Your task to perform on an android device: Go to wifi settings Image 0: 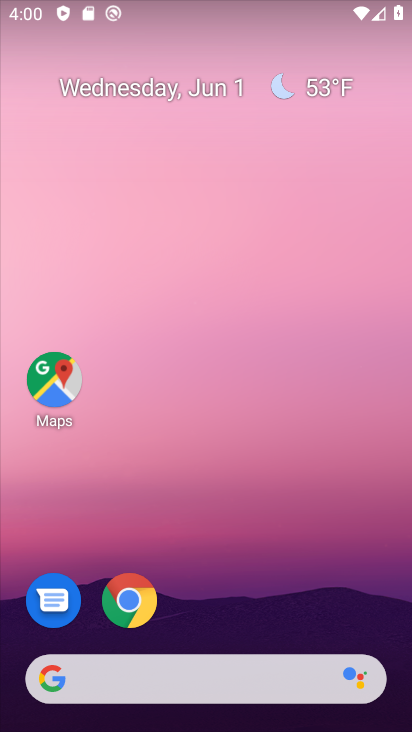
Step 0: drag from (266, 572) to (174, 122)
Your task to perform on an android device: Go to wifi settings Image 1: 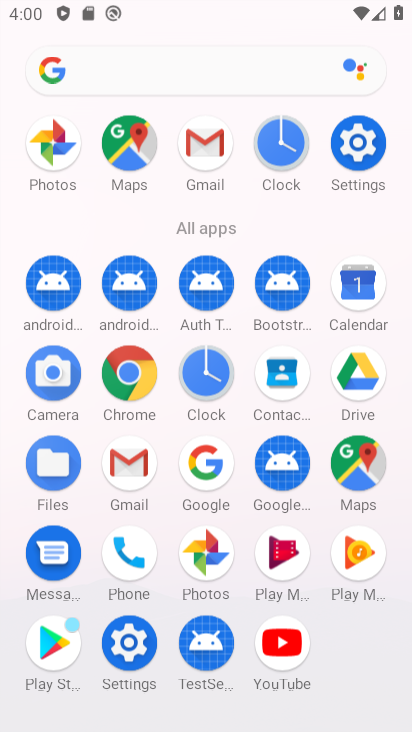
Step 1: drag from (224, 480) to (151, 3)
Your task to perform on an android device: Go to wifi settings Image 2: 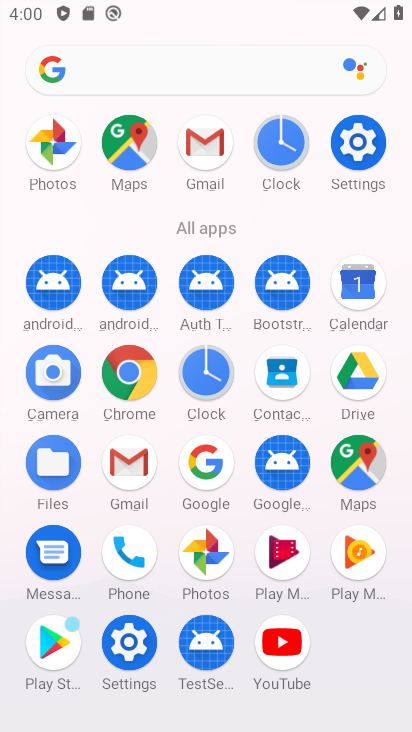
Step 2: click (358, 146)
Your task to perform on an android device: Go to wifi settings Image 3: 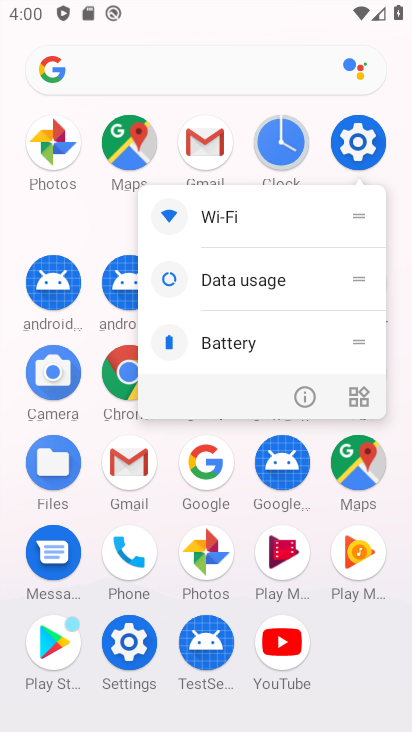
Step 3: click (361, 136)
Your task to perform on an android device: Go to wifi settings Image 4: 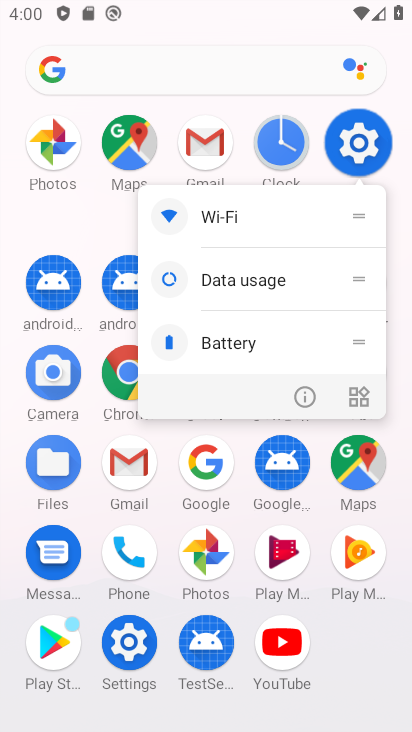
Step 4: click (357, 140)
Your task to perform on an android device: Go to wifi settings Image 5: 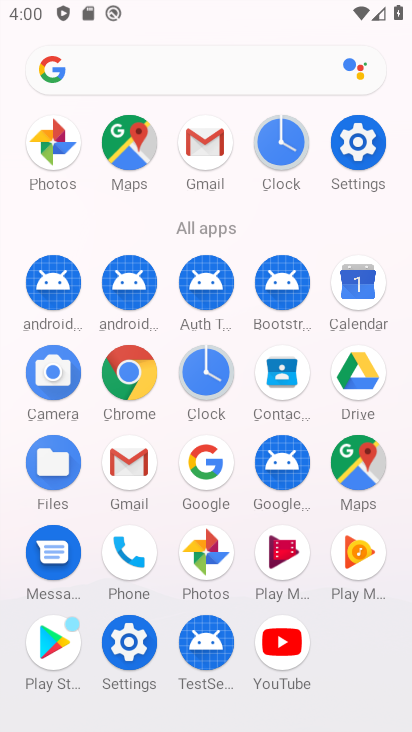
Step 5: click (358, 141)
Your task to perform on an android device: Go to wifi settings Image 6: 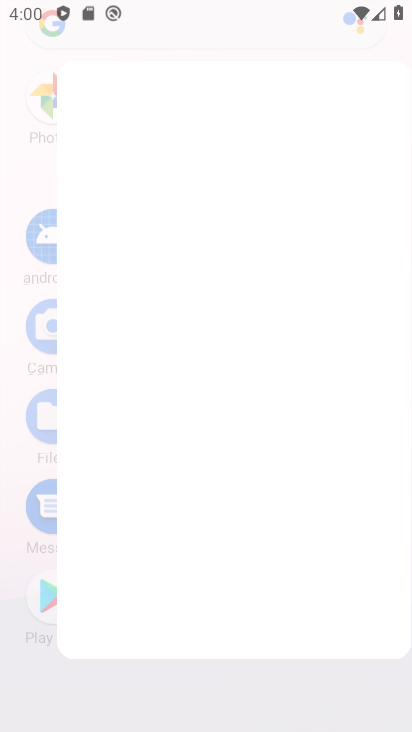
Step 6: click (361, 141)
Your task to perform on an android device: Go to wifi settings Image 7: 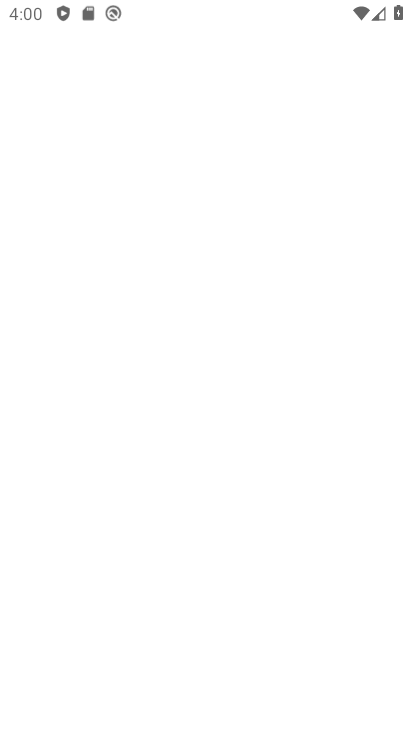
Step 7: click (361, 141)
Your task to perform on an android device: Go to wifi settings Image 8: 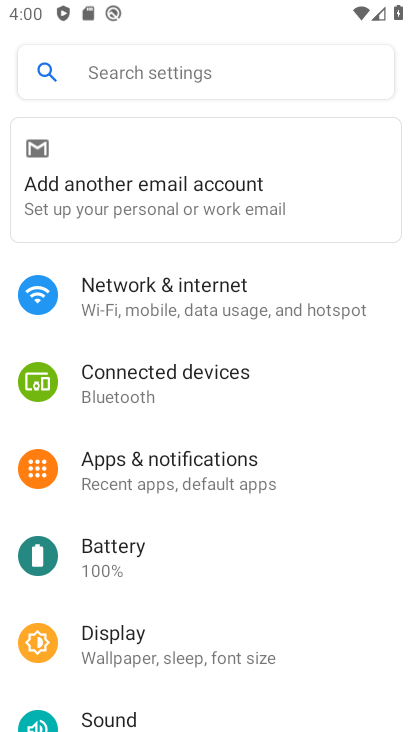
Step 8: drag from (134, 615) to (146, 149)
Your task to perform on an android device: Go to wifi settings Image 9: 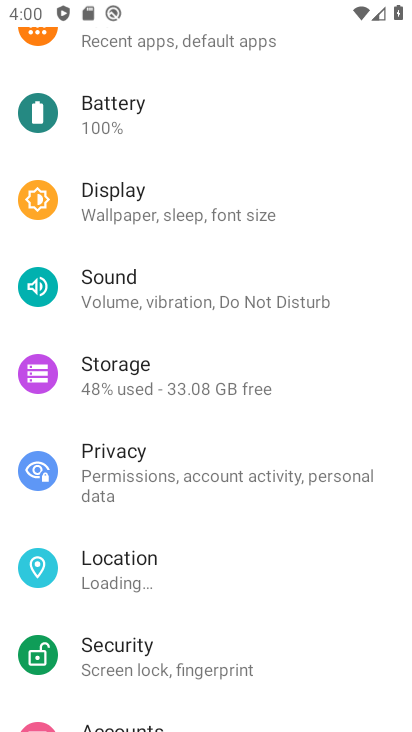
Step 9: drag from (166, 387) to (178, 243)
Your task to perform on an android device: Go to wifi settings Image 10: 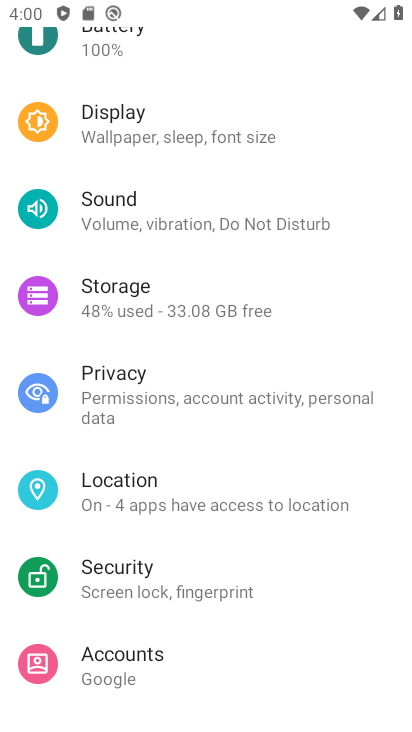
Step 10: drag from (141, 478) to (74, 188)
Your task to perform on an android device: Go to wifi settings Image 11: 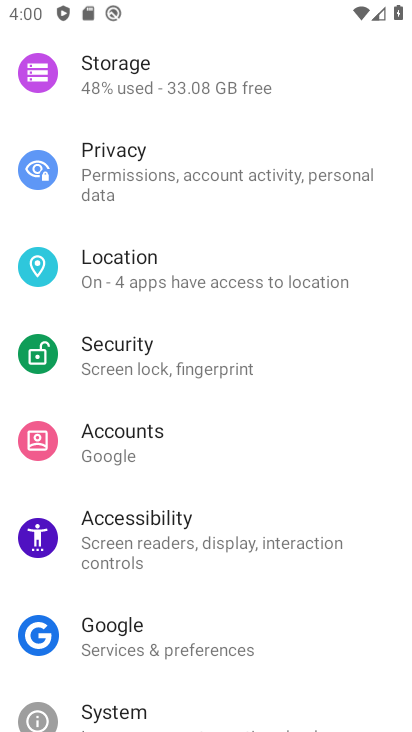
Step 11: drag from (149, 446) to (150, 254)
Your task to perform on an android device: Go to wifi settings Image 12: 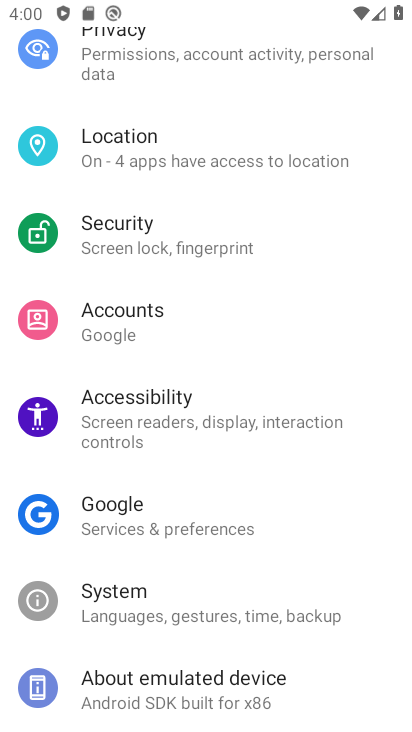
Step 12: drag from (133, 312) to (165, 597)
Your task to perform on an android device: Go to wifi settings Image 13: 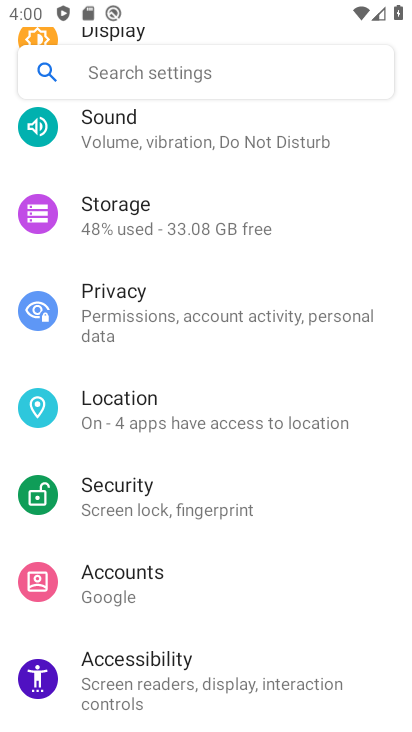
Step 13: drag from (169, 198) to (179, 459)
Your task to perform on an android device: Go to wifi settings Image 14: 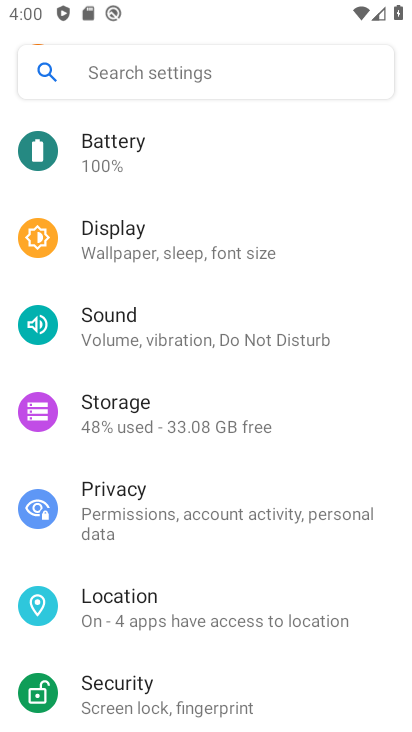
Step 14: drag from (151, 308) to (172, 505)
Your task to perform on an android device: Go to wifi settings Image 15: 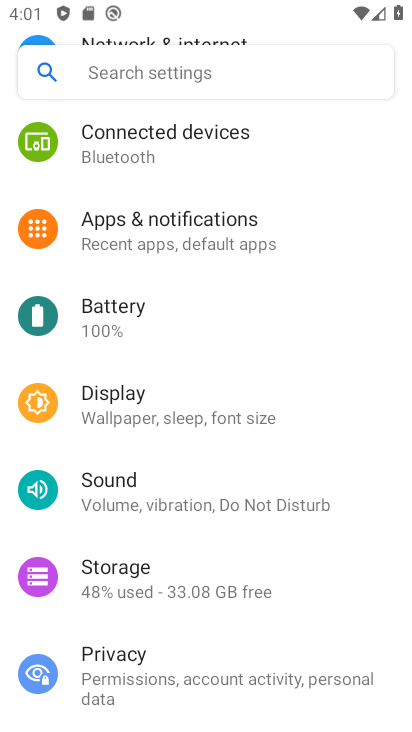
Step 15: drag from (126, 143) to (187, 496)
Your task to perform on an android device: Go to wifi settings Image 16: 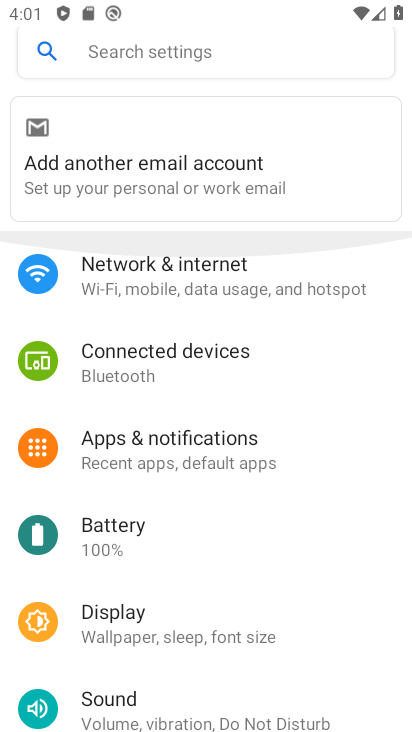
Step 16: drag from (158, 251) to (218, 647)
Your task to perform on an android device: Go to wifi settings Image 17: 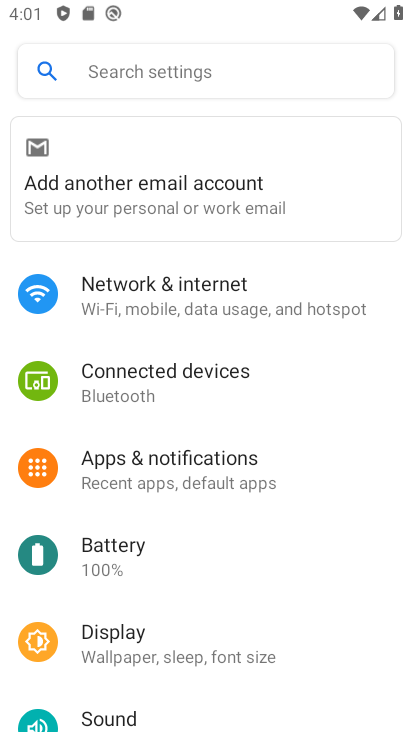
Step 17: click (167, 256)
Your task to perform on an android device: Go to wifi settings Image 18: 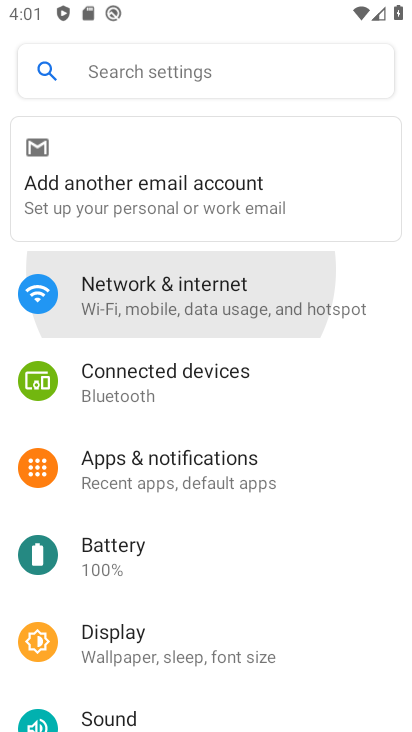
Step 18: click (163, 273)
Your task to perform on an android device: Go to wifi settings Image 19: 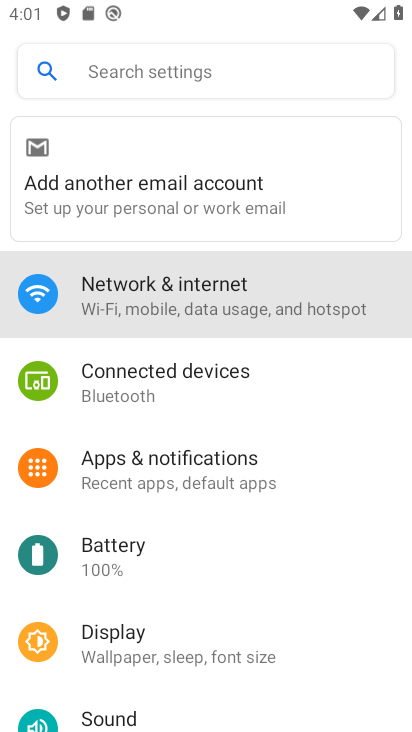
Step 19: click (167, 278)
Your task to perform on an android device: Go to wifi settings Image 20: 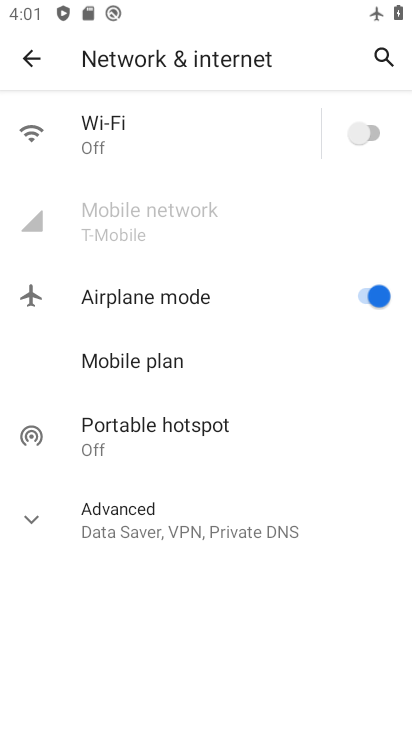
Step 20: click (374, 297)
Your task to perform on an android device: Go to wifi settings Image 21: 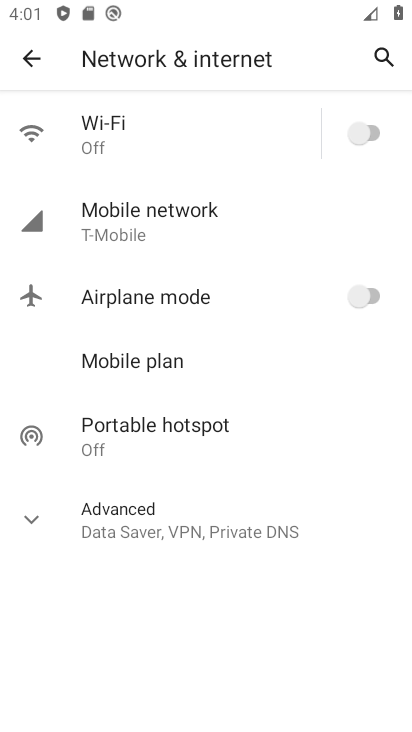
Step 21: click (351, 133)
Your task to perform on an android device: Go to wifi settings Image 22: 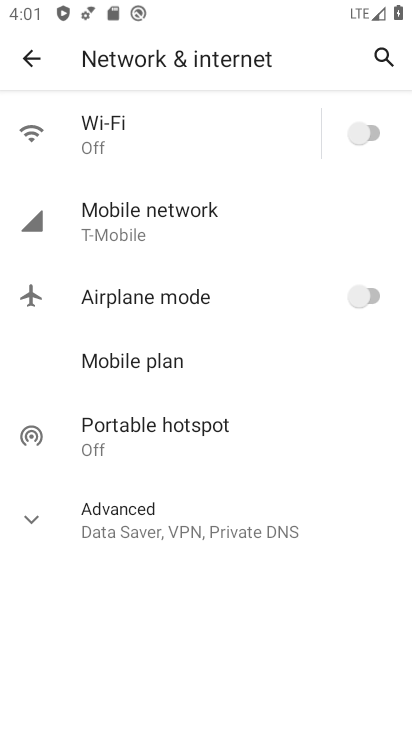
Step 22: click (357, 131)
Your task to perform on an android device: Go to wifi settings Image 23: 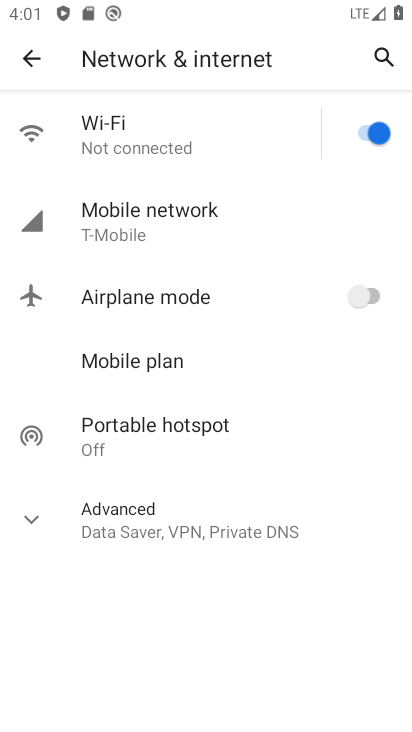
Step 23: task complete